Your task to perform on an android device: open app "WhatsApp Messenger" (install if not already installed) Image 0: 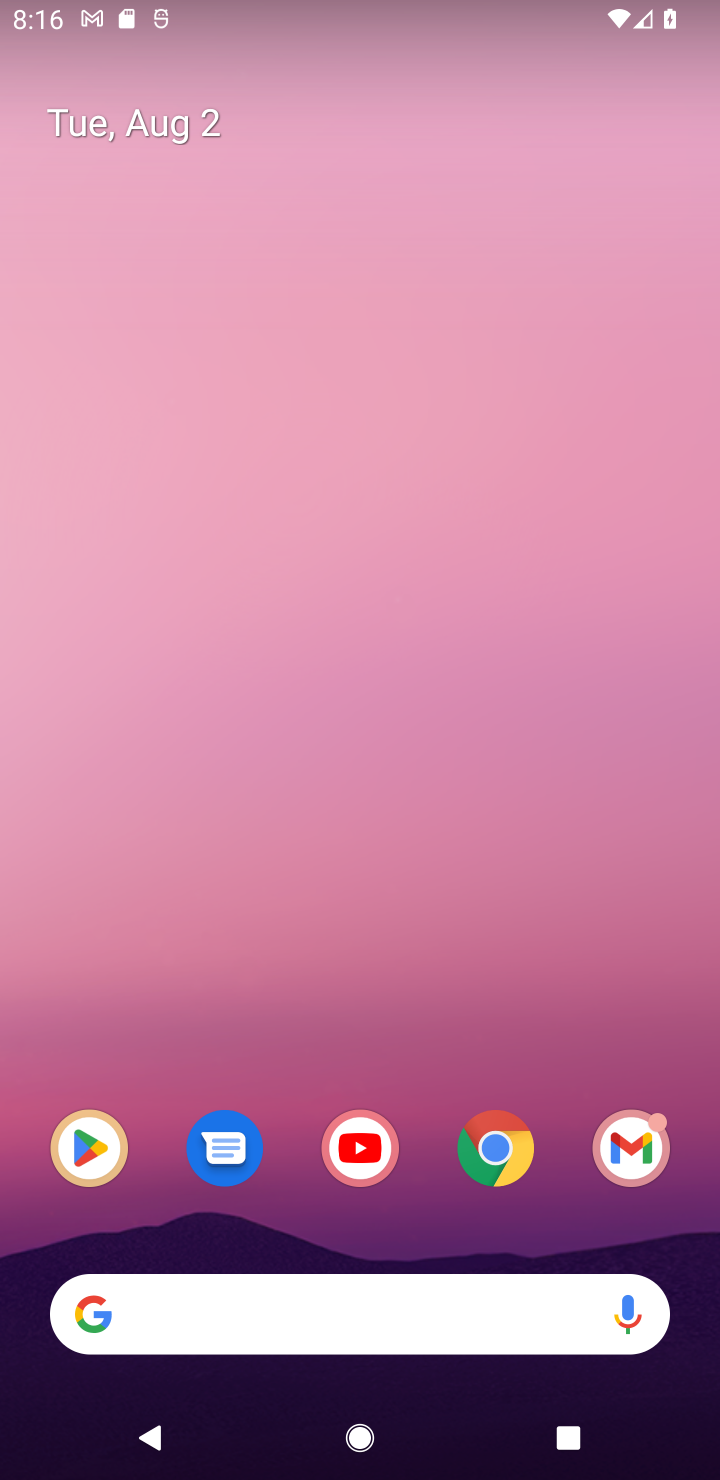
Step 0: drag from (511, 842) to (183, 10)
Your task to perform on an android device: open app "WhatsApp Messenger" (install if not already installed) Image 1: 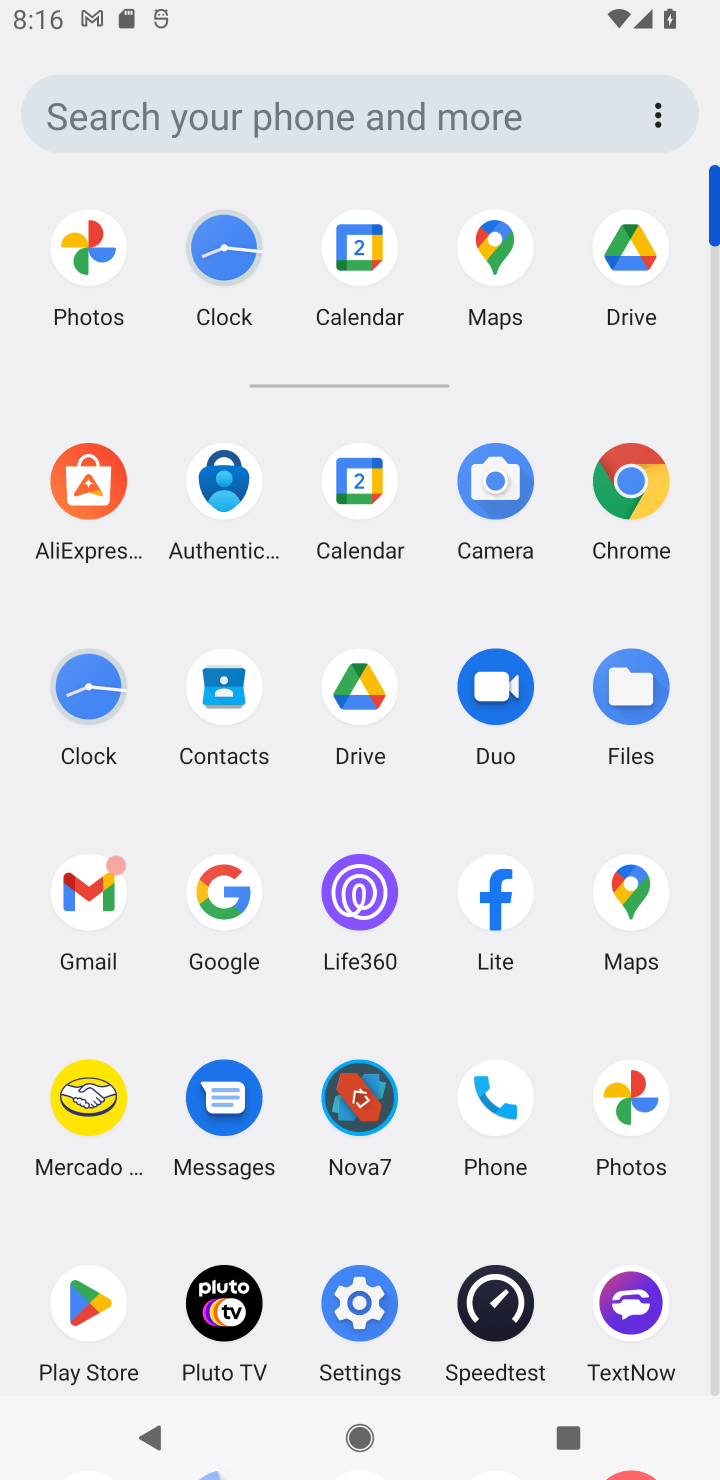
Step 1: click (109, 1316)
Your task to perform on an android device: open app "WhatsApp Messenger" (install if not already installed) Image 2: 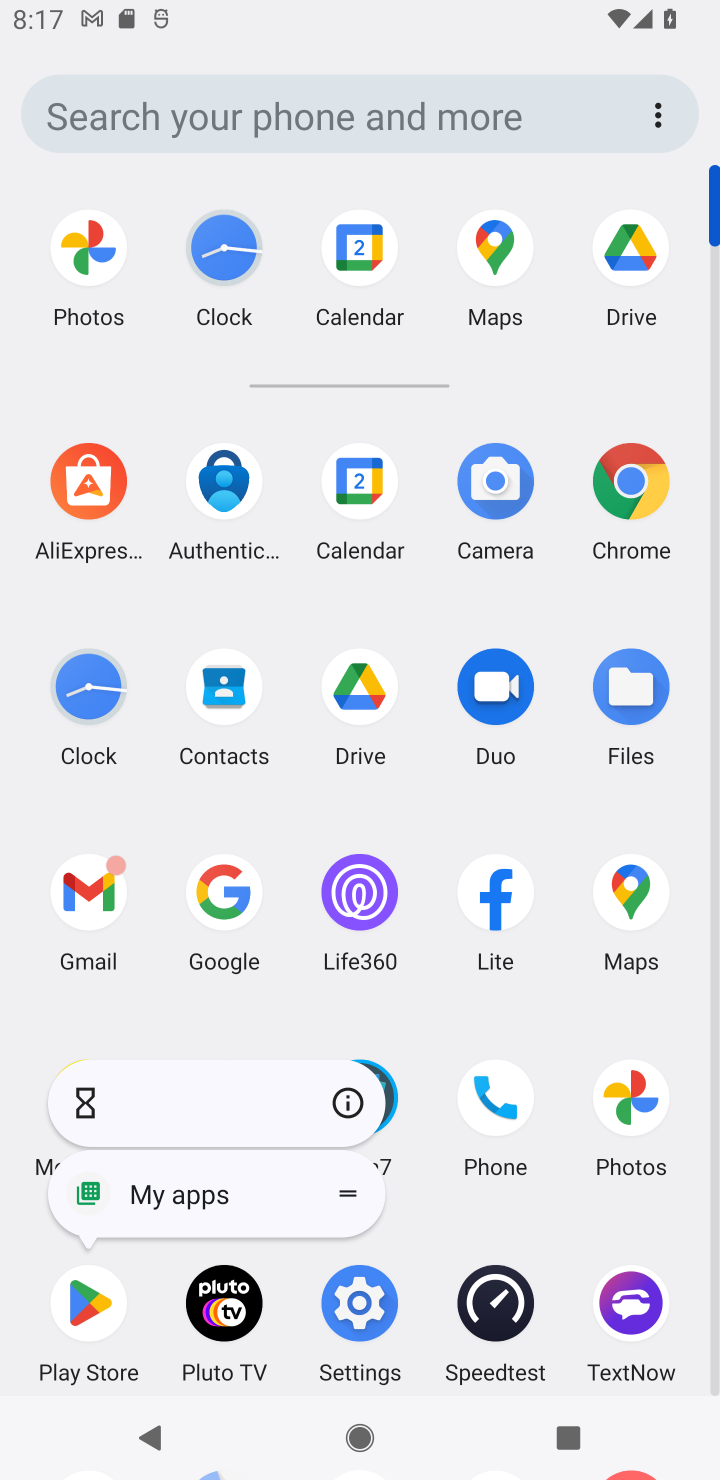
Step 2: click (90, 1282)
Your task to perform on an android device: open app "WhatsApp Messenger" (install if not already installed) Image 3: 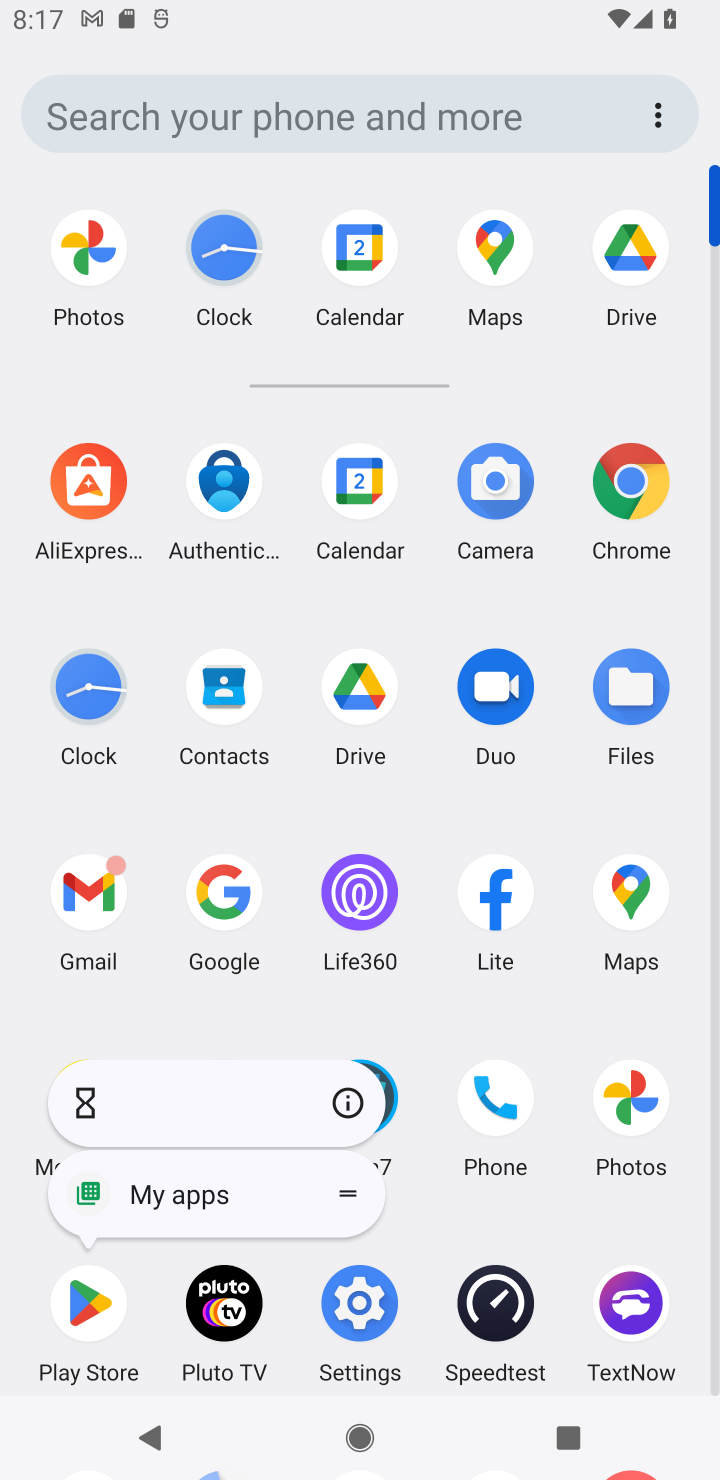
Step 3: click (75, 1330)
Your task to perform on an android device: open app "WhatsApp Messenger" (install if not already installed) Image 4: 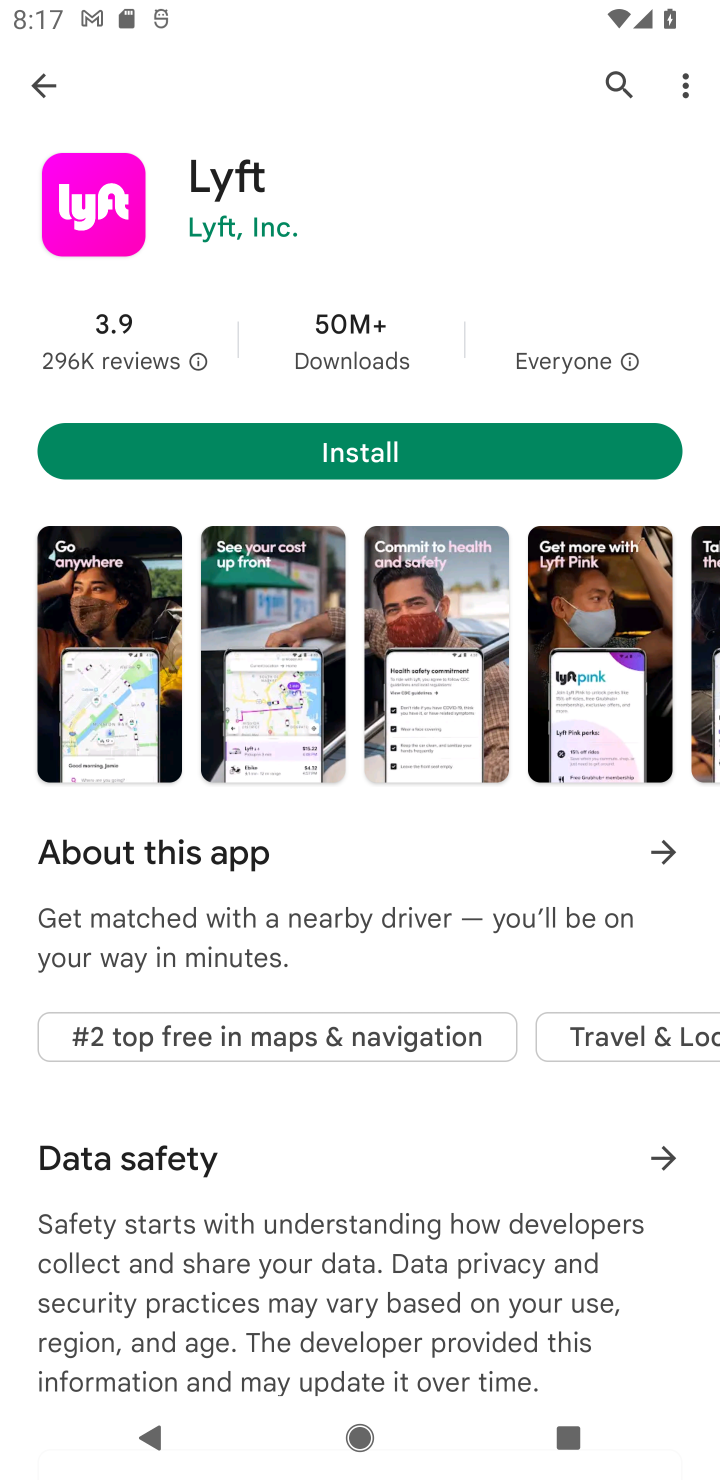
Step 4: press back button
Your task to perform on an android device: open app "WhatsApp Messenger" (install if not already installed) Image 5: 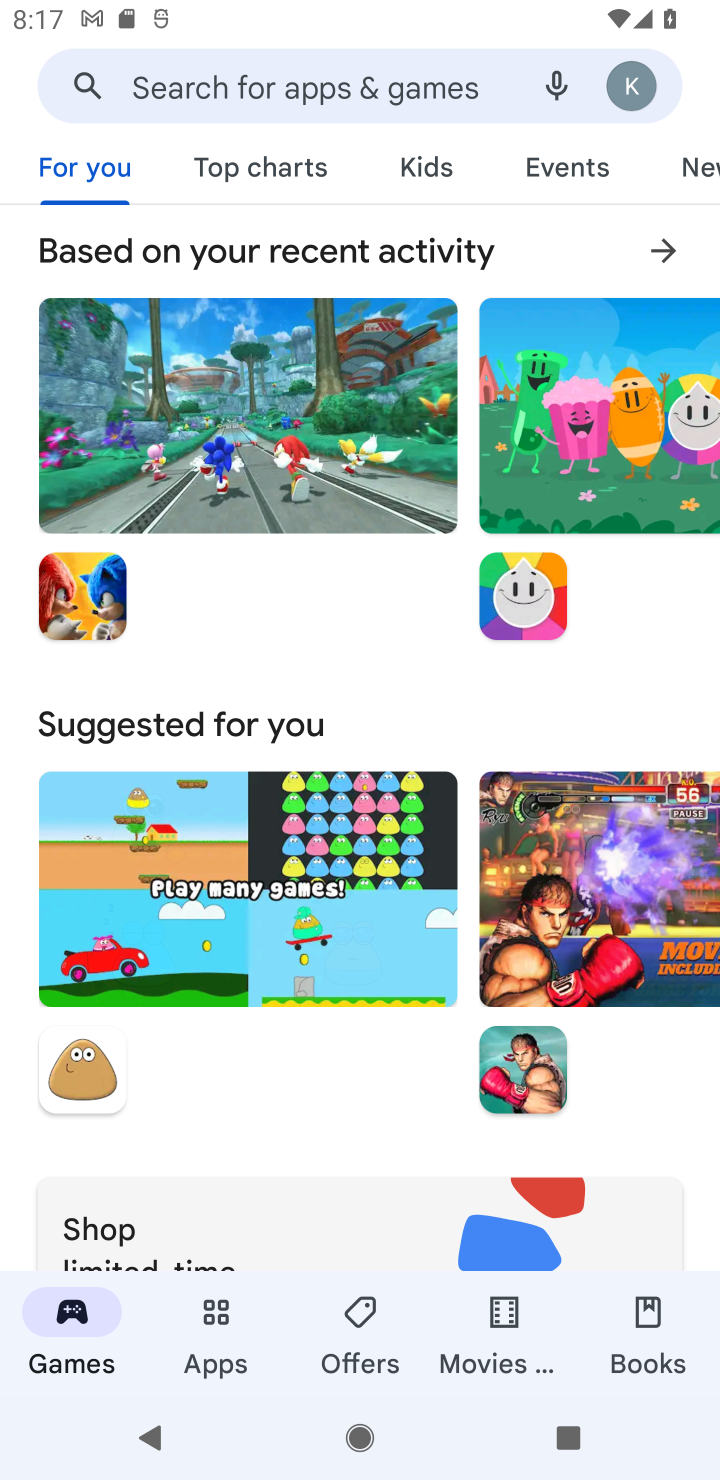
Step 5: click (307, 103)
Your task to perform on an android device: open app "WhatsApp Messenger" (install if not already installed) Image 6: 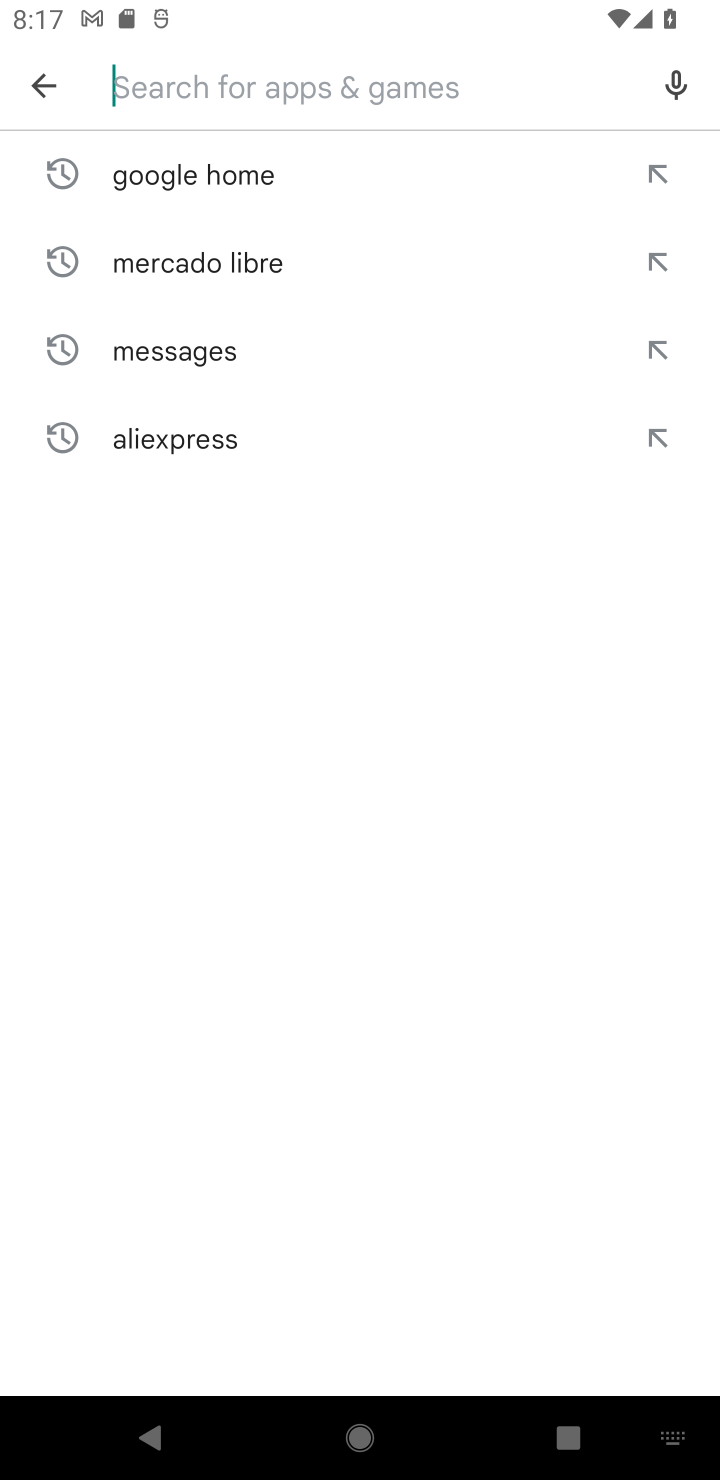
Step 6: type "WhatsApp Messenger"
Your task to perform on an android device: open app "WhatsApp Messenger" (install if not already installed) Image 7: 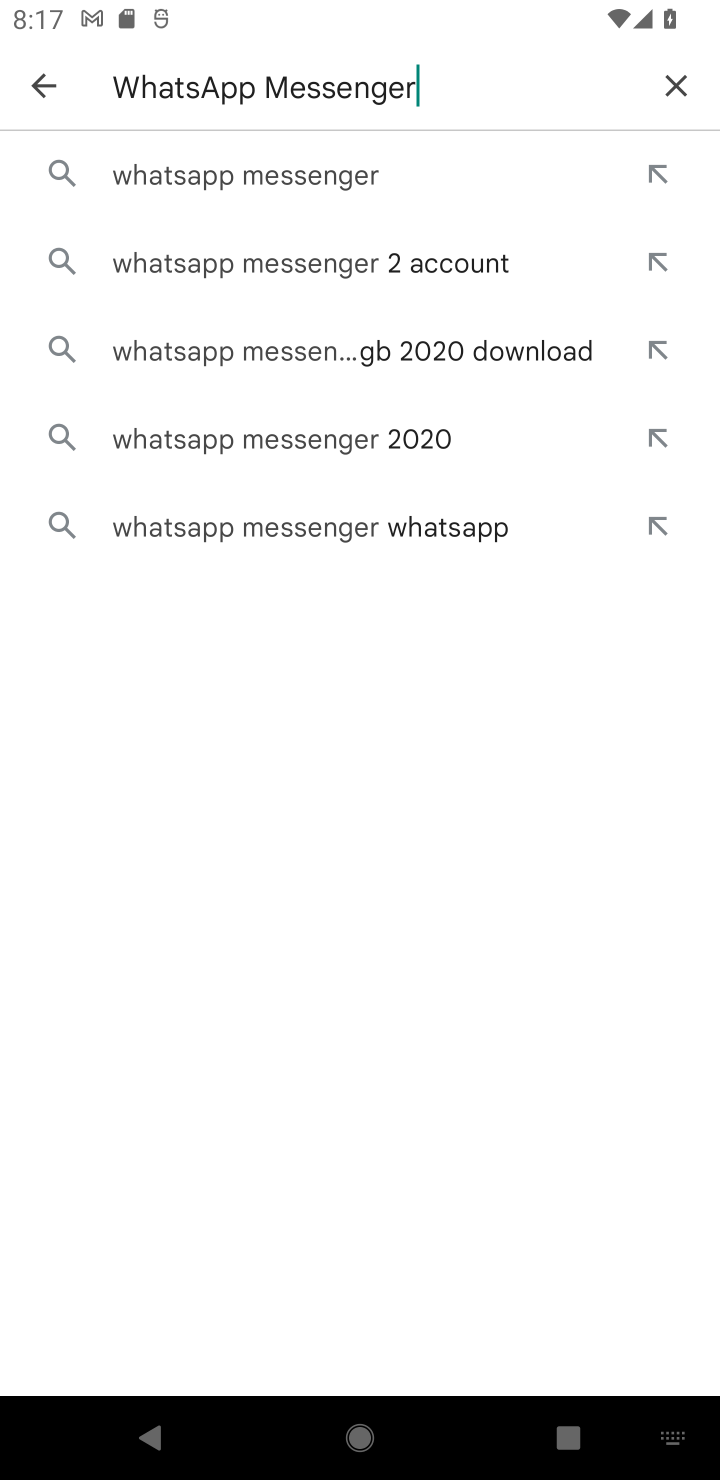
Step 7: click (276, 176)
Your task to perform on an android device: open app "WhatsApp Messenger" (install if not already installed) Image 8: 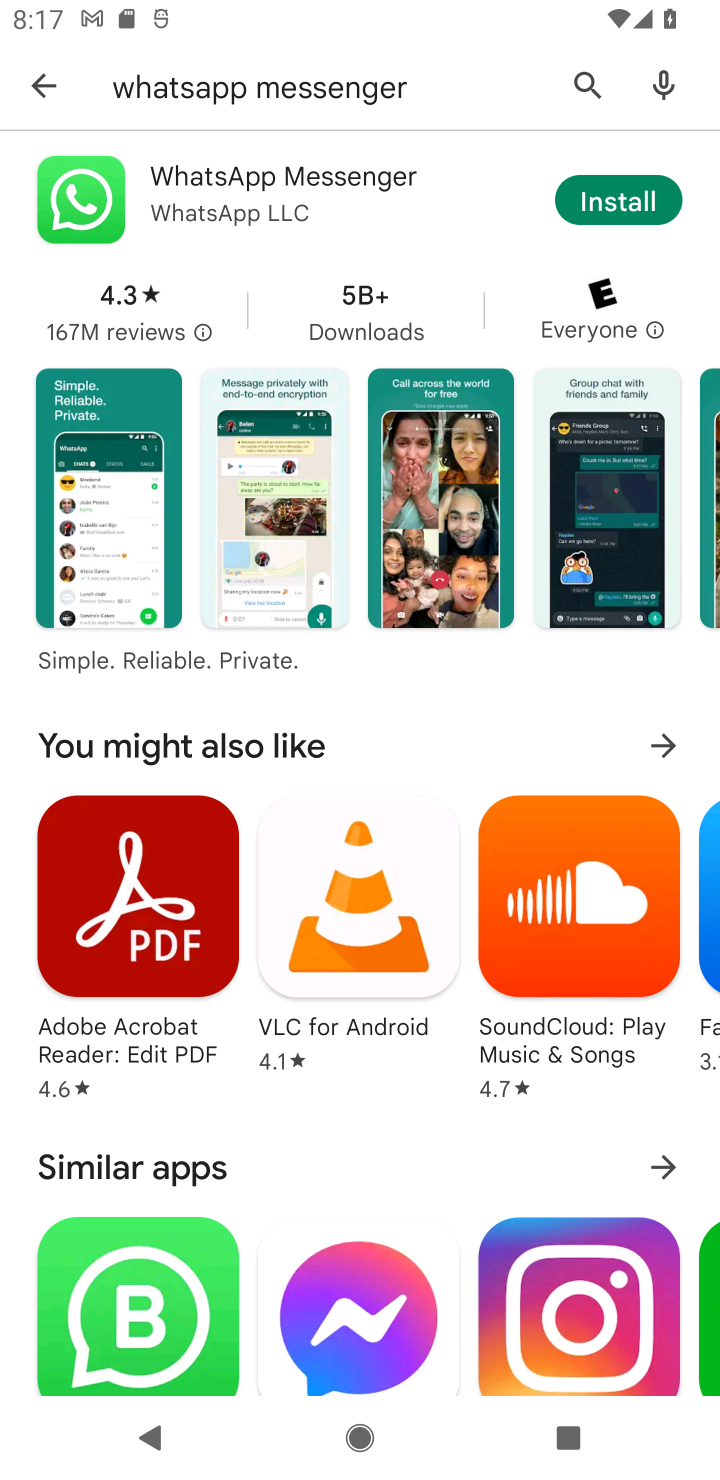
Step 8: task complete